Your task to perform on an android device: add a contact in the contacts app Image 0: 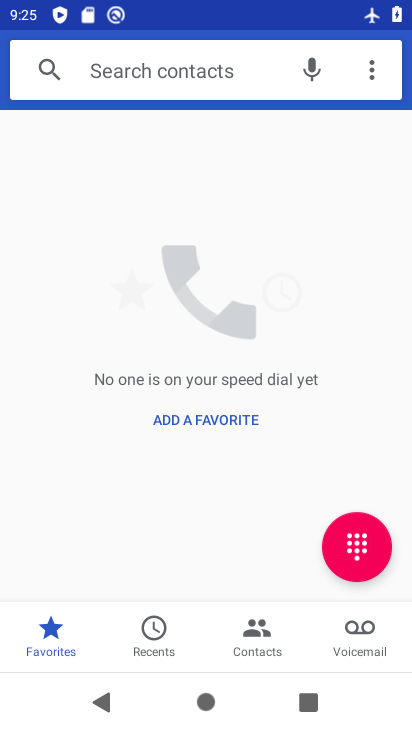
Step 0: press home button
Your task to perform on an android device: add a contact in the contacts app Image 1: 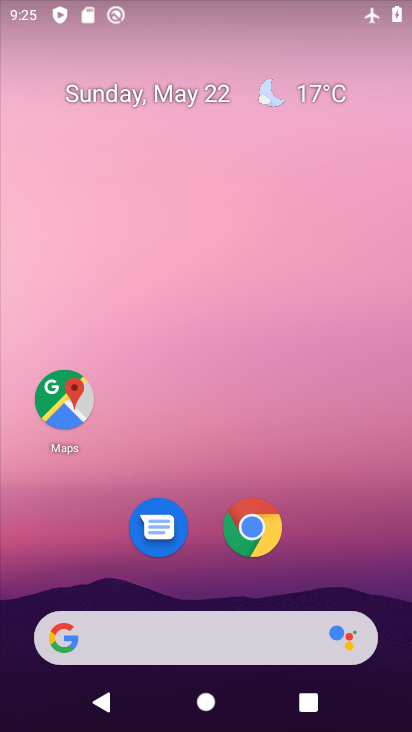
Step 1: drag from (342, 525) to (259, 145)
Your task to perform on an android device: add a contact in the contacts app Image 2: 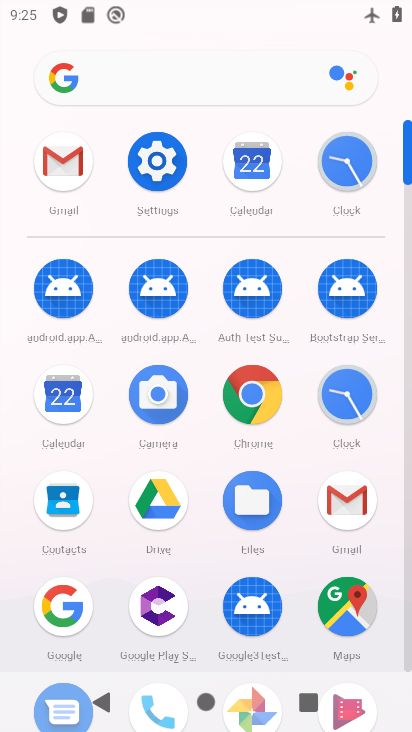
Step 2: click (65, 501)
Your task to perform on an android device: add a contact in the contacts app Image 3: 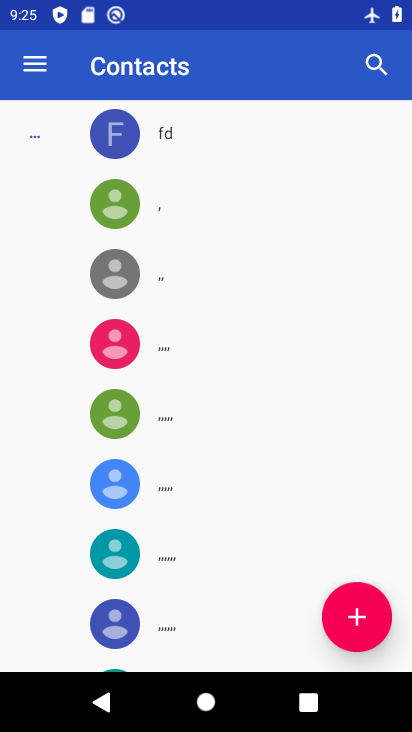
Step 3: click (362, 623)
Your task to perform on an android device: add a contact in the contacts app Image 4: 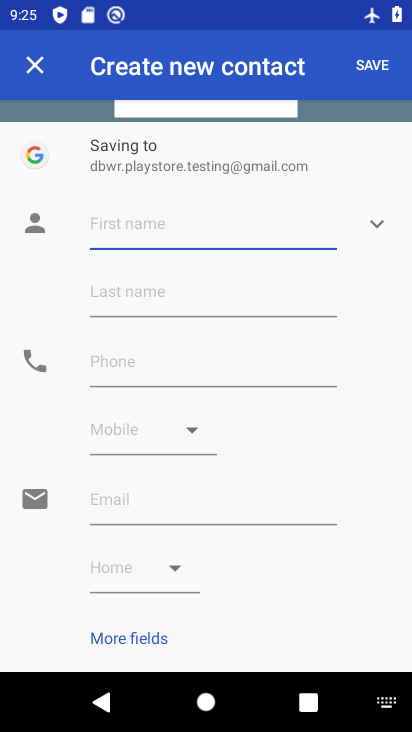
Step 4: click (164, 225)
Your task to perform on an android device: add a contact in the contacts app Image 5: 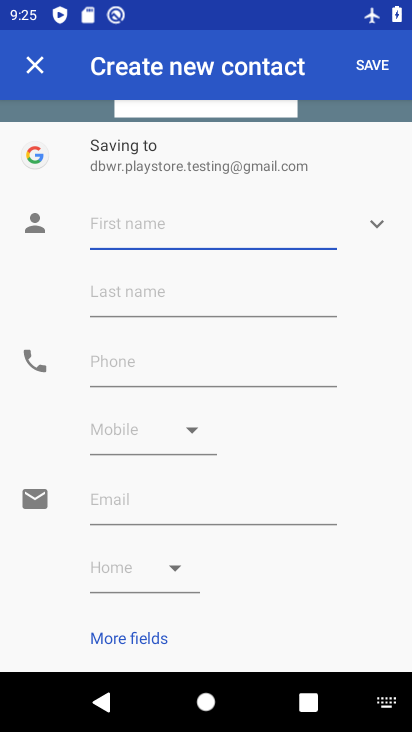
Step 5: type ".............,,,"
Your task to perform on an android device: add a contact in the contacts app Image 6: 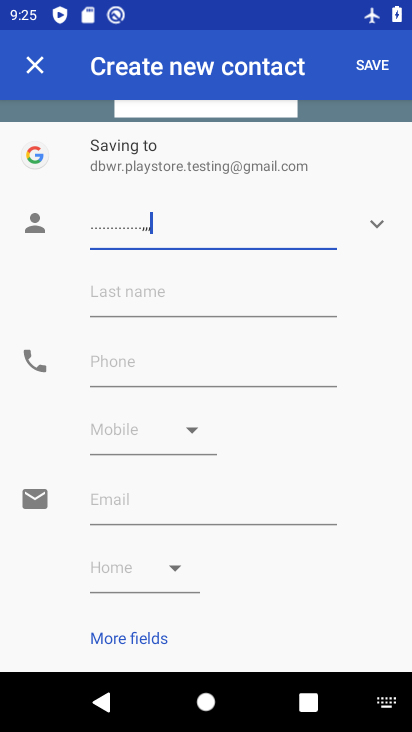
Step 6: click (173, 351)
Your task to perform on an android device: add a contact in the contacts app Image 7: 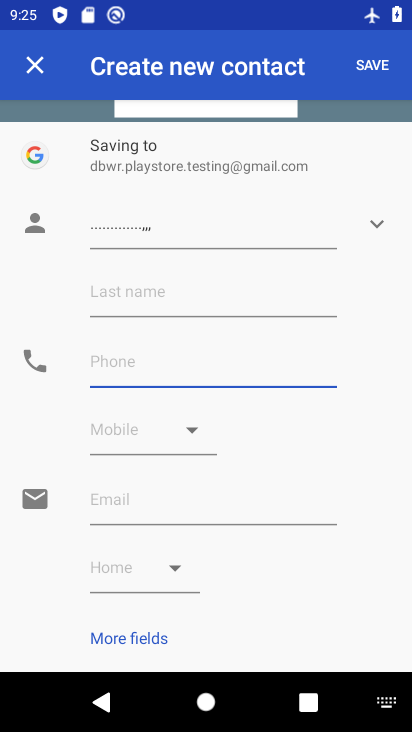
Step 7: type "9888888888888887"
Your task to perform on an android device: add a contact in the contacts app Image 8: 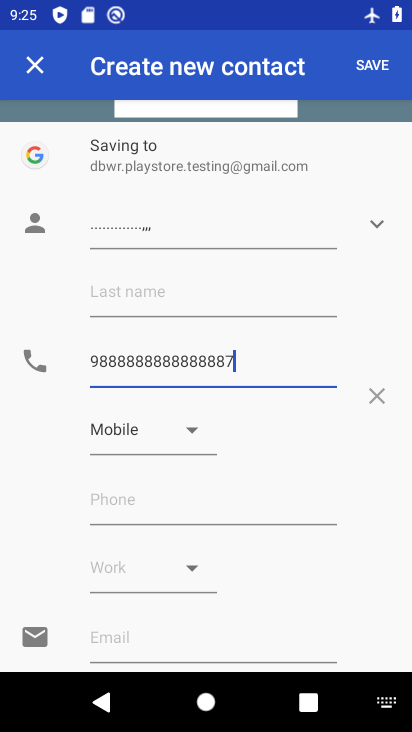
Step 8: click (366, 65)
Your task to perform on an android device: add a contact in the contacts app Image 9: 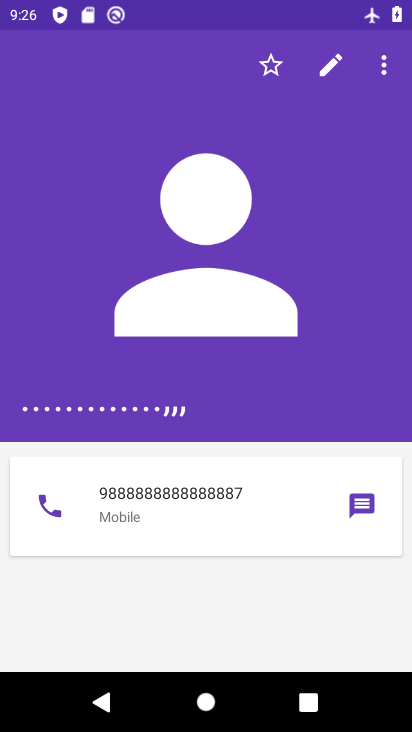
Step 9: task complete